Your task to perform on an android device: Open location settings Image 0: 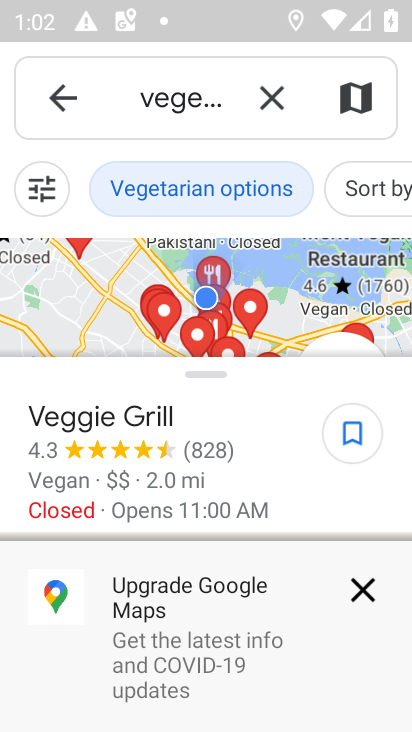
Step 0: press home button
Your task to perform on an android device: Open location settings Image 1: 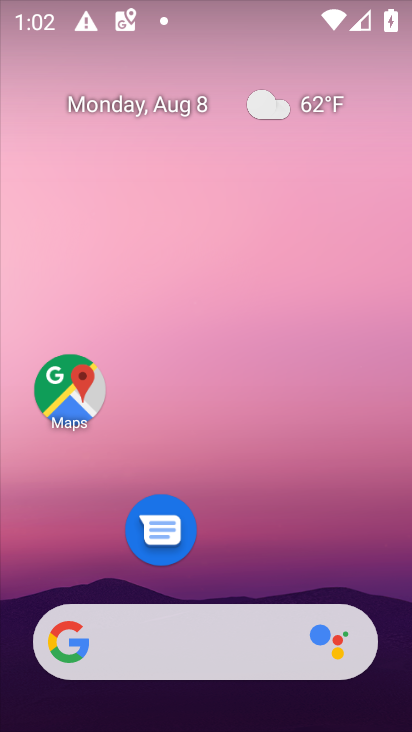
Step 1: drag from (251, 568) to (262, 157)
Your task to perform on an android device: Open location settings Image 2: 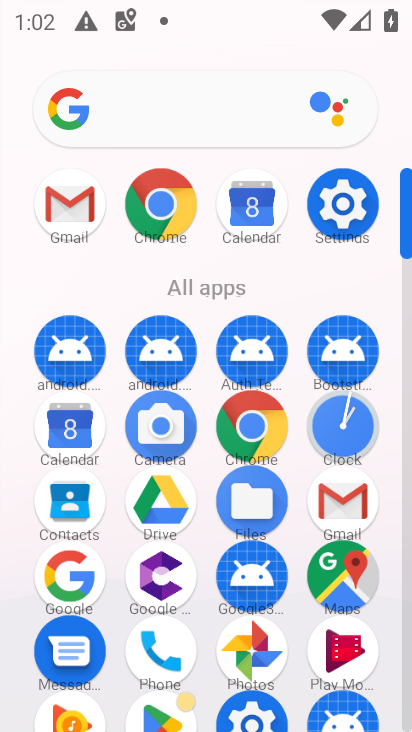
Step 2: click (344, 203)
Your task to perform on an android device: Open location settings Image 3: 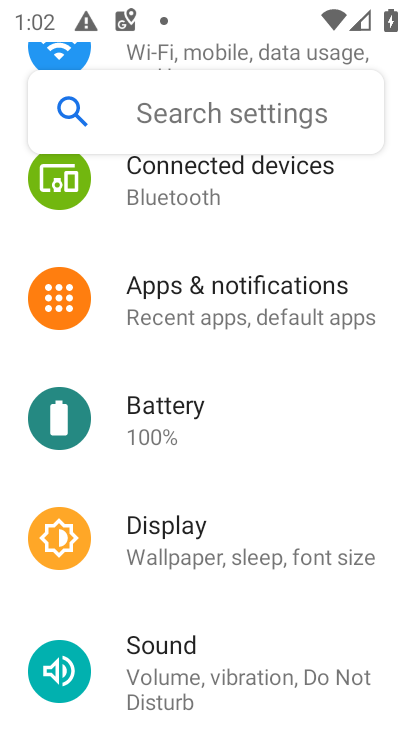
Step 3: drag from (163, 614) to (163, 330)
Your task to perform on an android device: Open location settings Image 4: 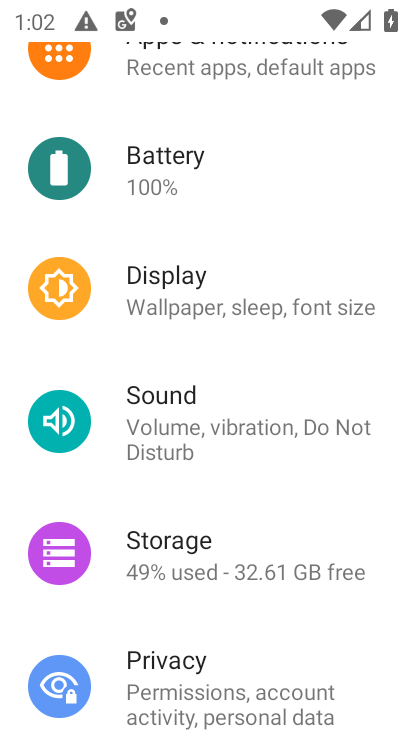
Step 4: drag from (180, 690) to (169, 334)
Your task to perform on an android device: Open location settings Image 5: 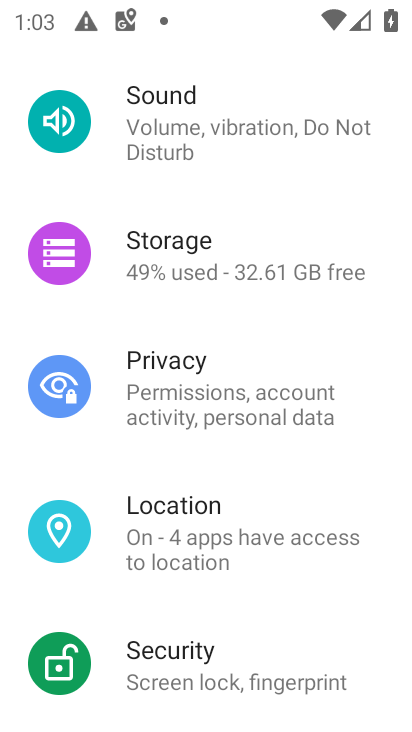
Step 5: click (185, 522)
Your task to perform on an android device: Open location settings Image 6: 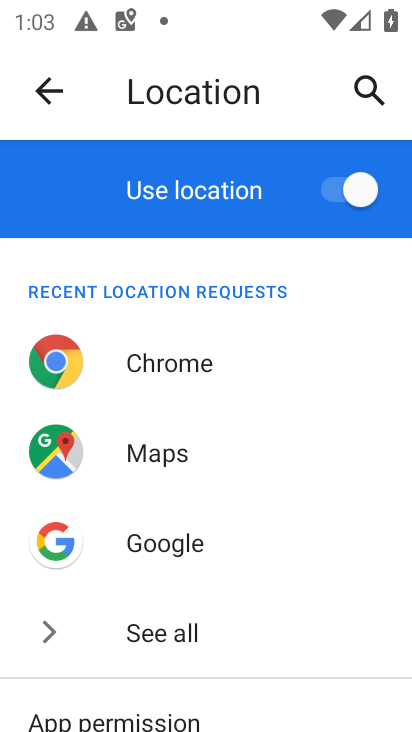
Step 6: task complete